Your task to perform on an android device: Open Reddit.com Image 0: 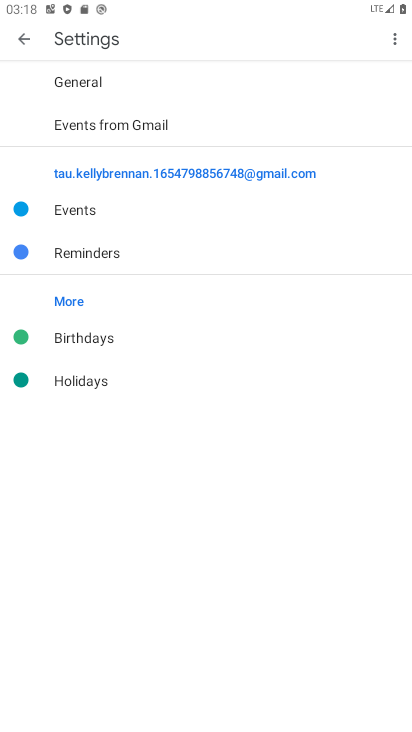
Step 0: press home button
Your task to perform on an android device: Open Reddit.com Image 1: 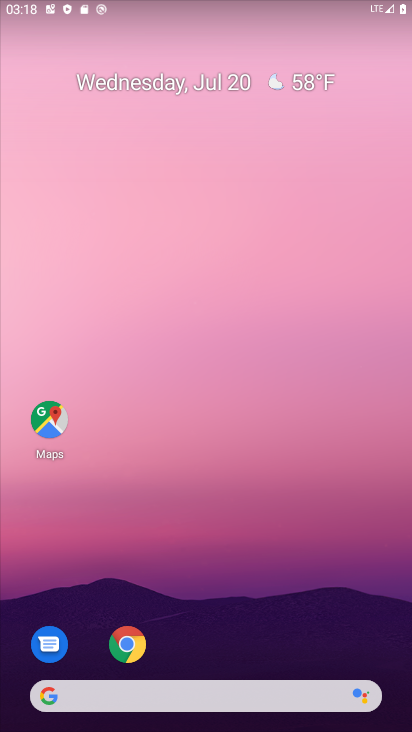
Step 1: click (75, 690)
Your task to perform on an android device: Open Reddit.com Image 2: 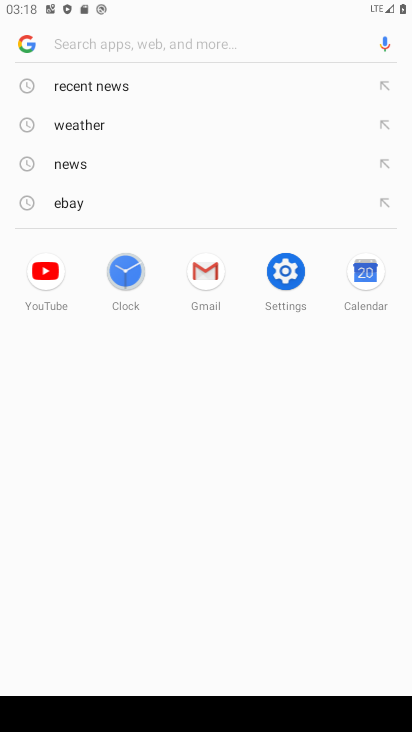
Step 2: type "Reddit.com"
Your task to perform on an android device: Open Reddit.com Image 3: 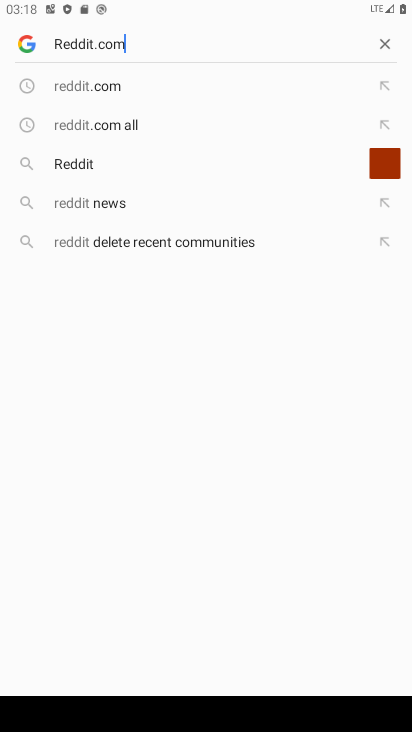
Step 3: type ""
Your task to perform on an android device: Open Reddit.com Image 4: 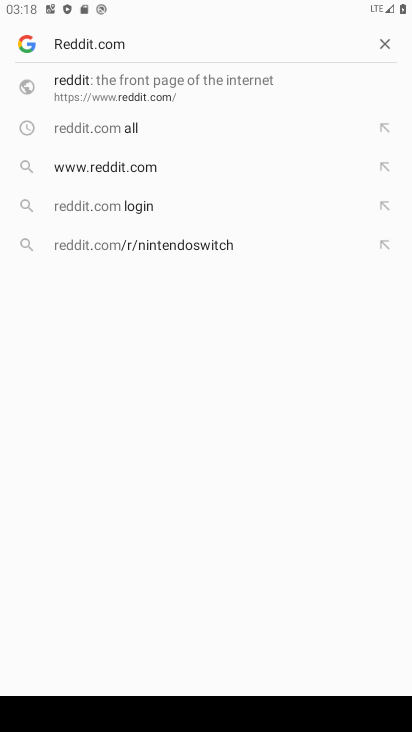
Step 4: click (176, 174)
Your task to perform on an android device: Open Reddit.com Image 5: 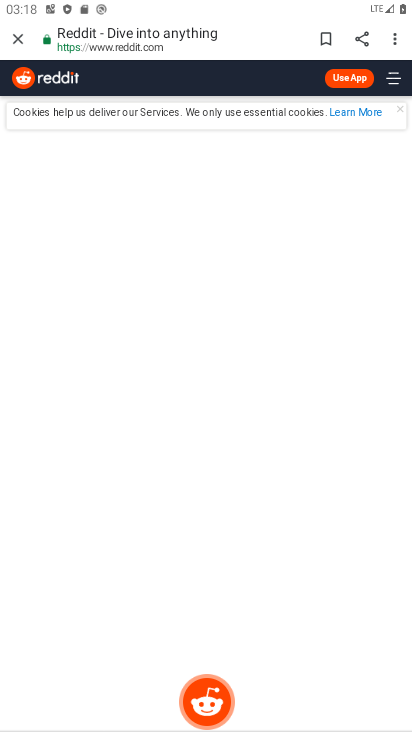
Step 5: task complete